Your task to perform on an android device: Go to Wikipedia Image 0: 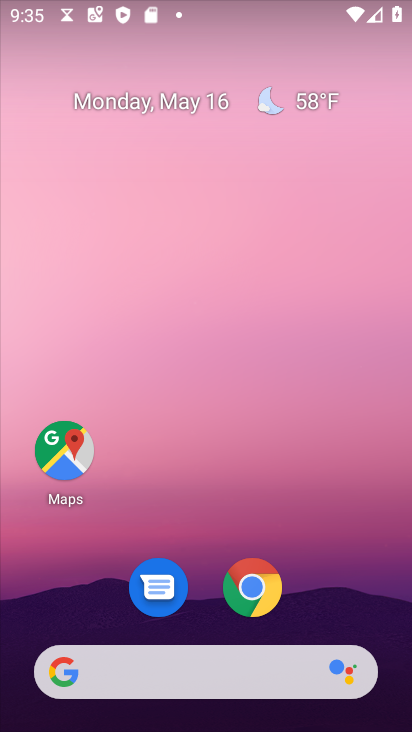
Step 0: click (264, 581)
Your task to perform on an android device: Go to Wikipedia Image 1: 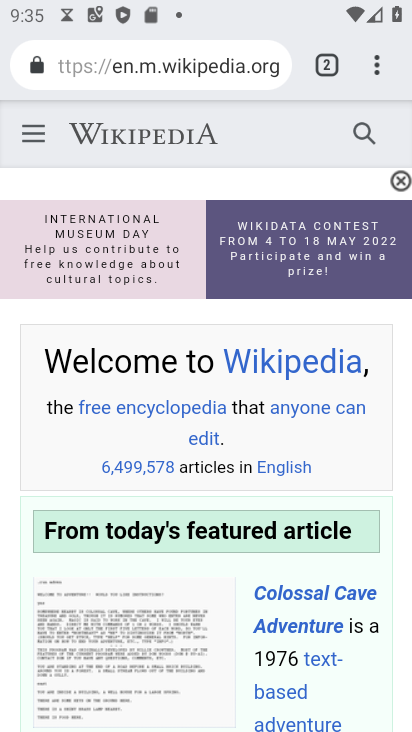
Step 1: task complete